Your task to perform on an android device: Open Youtube and go to "Your channel" Image 0: 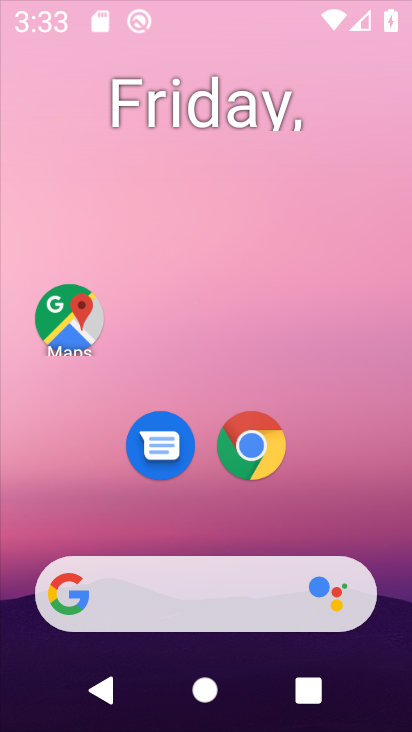
Step 0: drag from (404, 587) to (358, 151)
Your task to perform on an android device: Open Youtube and go to "Your channel" Image 1: 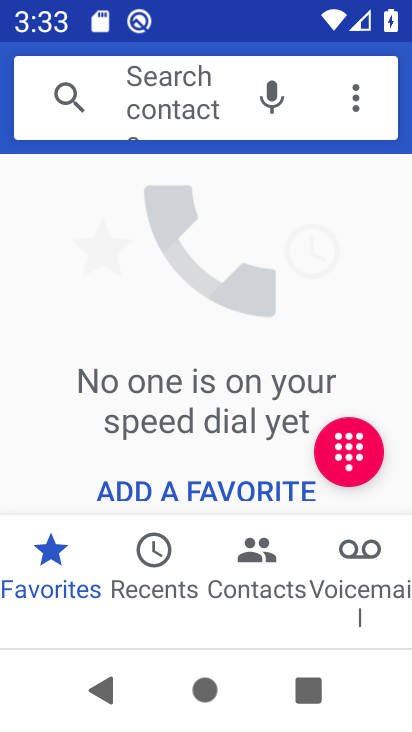
Step 1: press home button
Your task to perform on an android device: Open Youtube and go to "Your channel" Image 2: 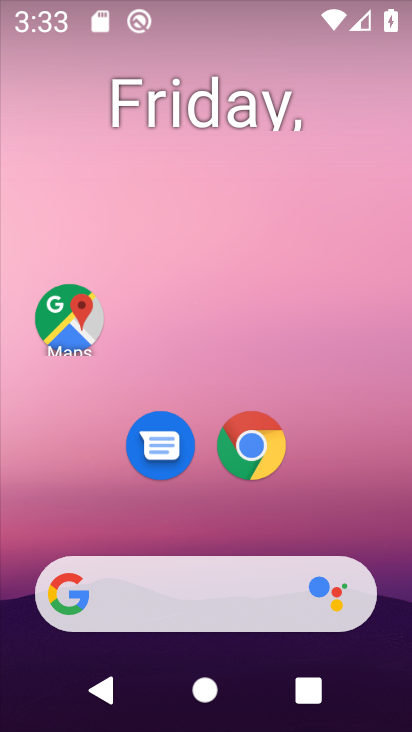
Step 2: drag from (388, 536) to (334, 169)
Your task to perform on an android device: Open Youtube and go to "Your channel" Image 3: 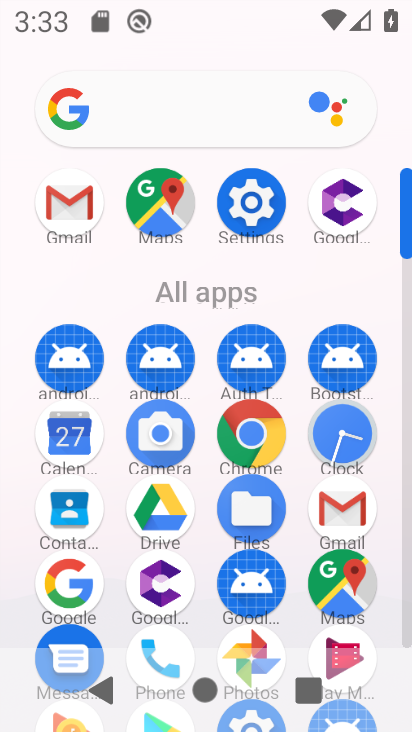
Step 3: click (404, 642)
Your task to perform on an android device: Open Youtube and go to "Your channel" Image 4: 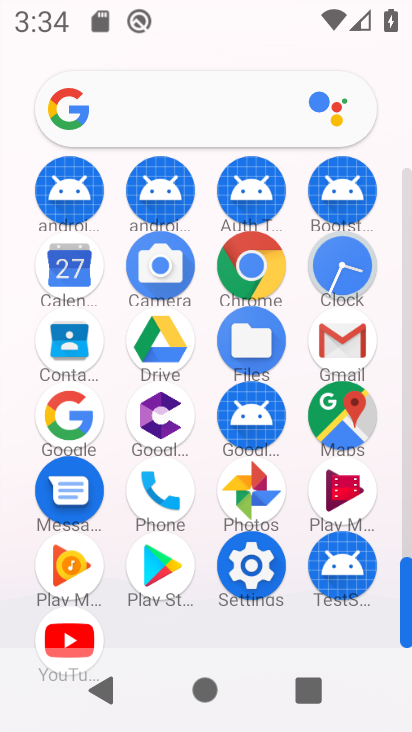
Step 4: click (79, 642)
Your task to perform on an android device: Open Youtube and go to "Your channel" Image 5: 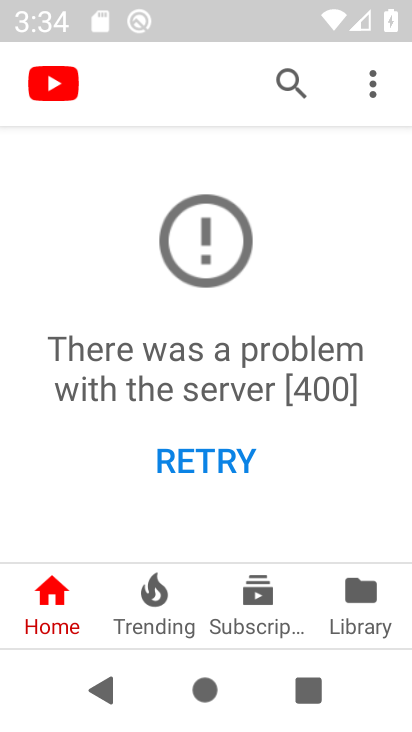
Step 5: click (369, 82)
Your task to perform on an android device: Open Youtube and go to "Your channel" Image 6: 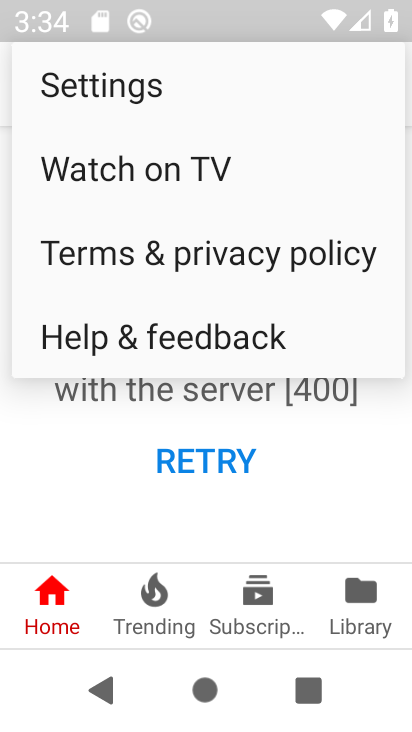
Step 6: task complete